Your task to perform on an android device: turn off notifications in google photos Image 0: 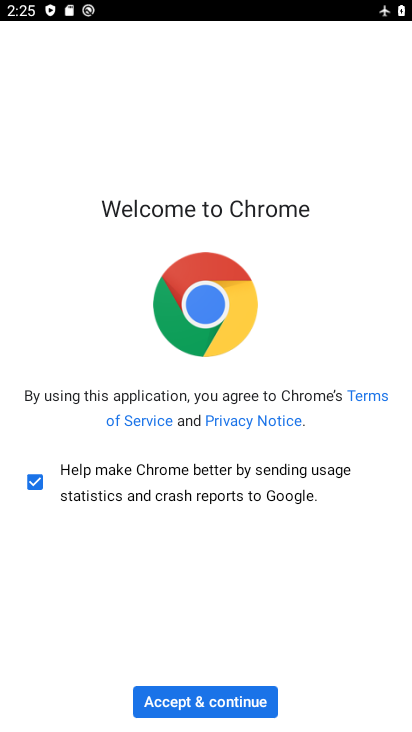
Step 0: press home button
Your task to perform on an android device: turn off notifications in google photos Image 1: 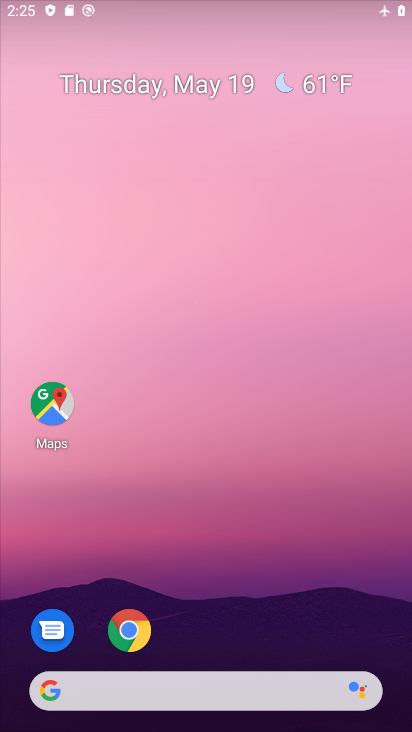
Step 1: drag from (267, 515) to (130, 22)
Your task to perform on an android device: turn off notifications in google photos Image 2: 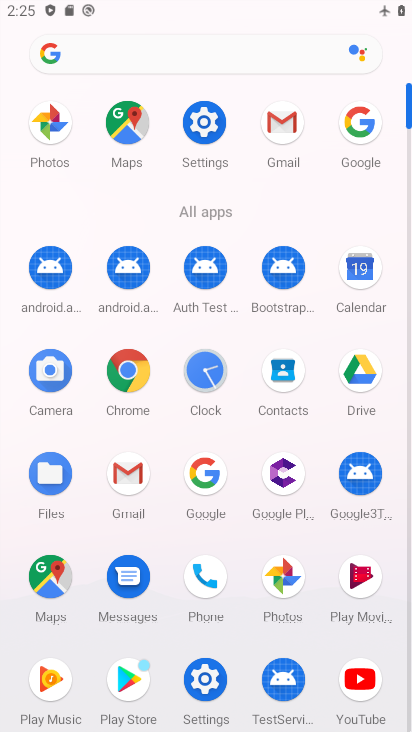
Step 2: click (285, 577)
Your task to perform on an android device: turn off notifications in google photos Image 3: 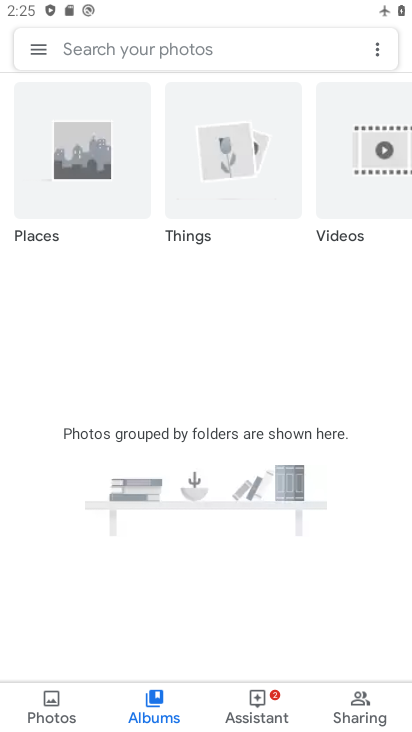
Step 3: click (34, 44)
Your task to perform on an android device: turn off notifications in google photos Image 4: 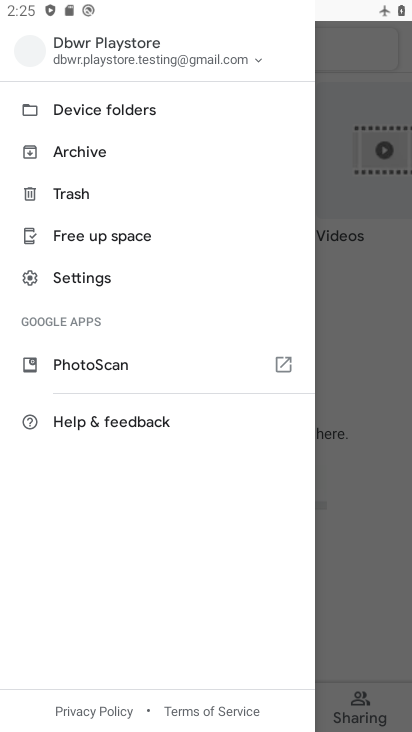
Step 4: click (115, 277)
Your task to perform on an android device: turn off notifications in google photos Image 5: 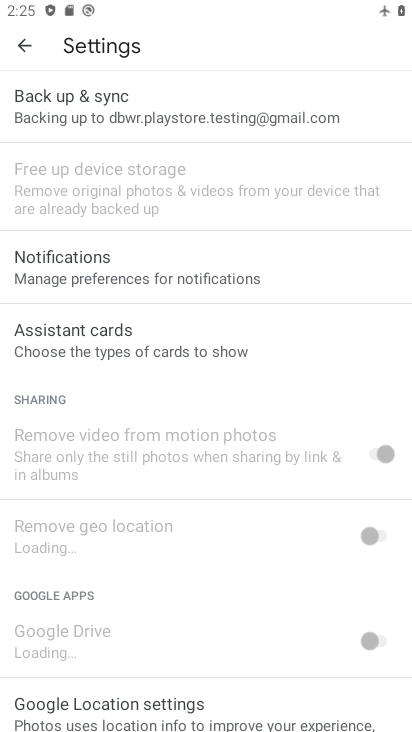
Step 5: click (128, 259)
Your task to perform on an android device: turn off notifications in google photos Image 6: 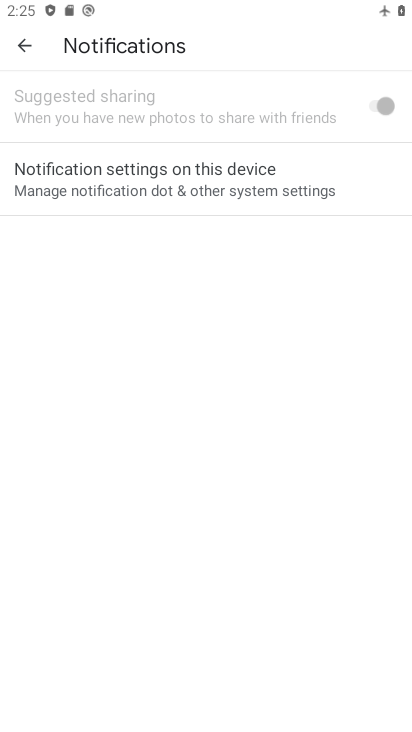
Step 6: click (381, 107)
Your task to perform on an android device: turn off notifications in google photos Image 7: 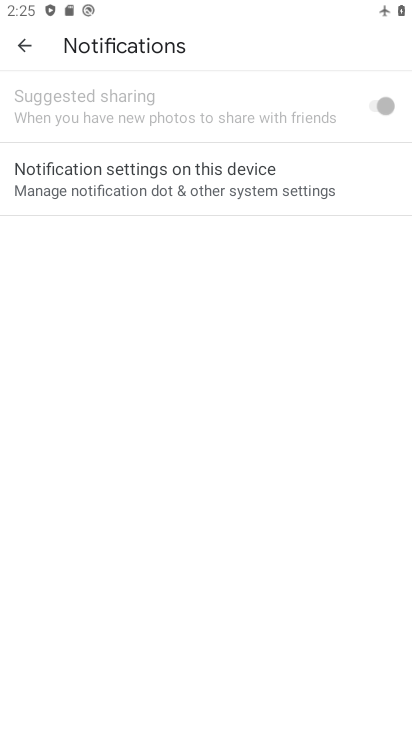
Step 7: click (381, 103)
Your task to perform on an android device: turn off notifications in google photos Image 8: 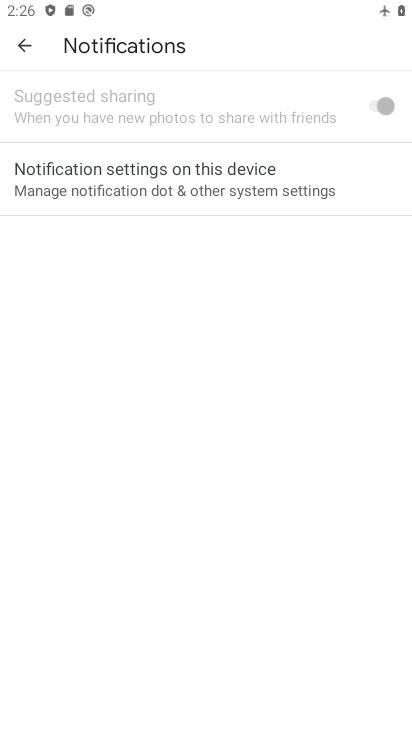
Step 8: task complete